Your task to perform on an android device: Find coffee shops on Maps Image 0: 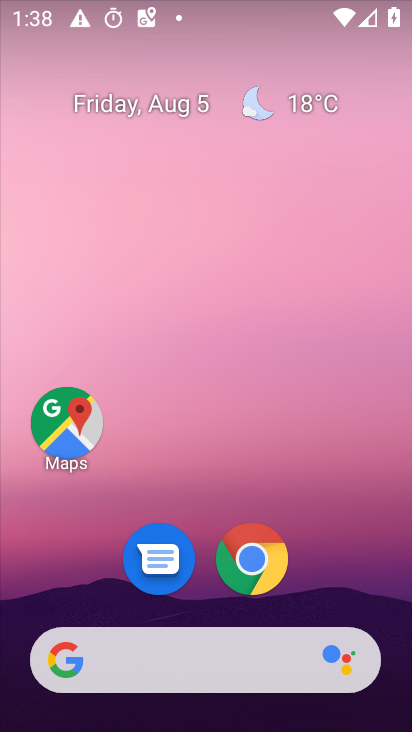
Step 0: click (83, 427)
Your task to perform on an android device: Find coffee shops on Maps Image 1: 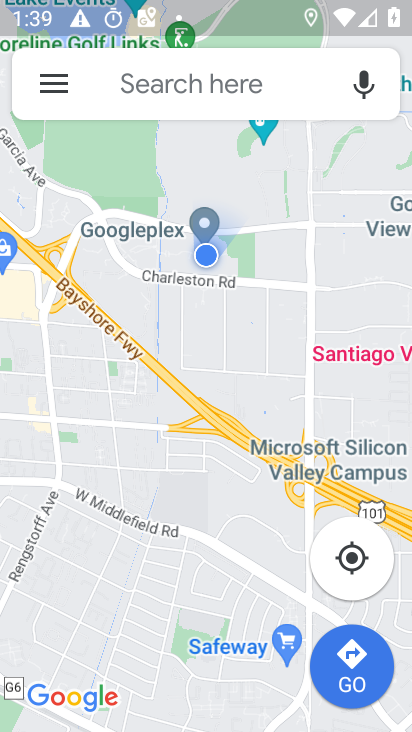
Step 1: click (126, 64)
Your task to perform on an android device: Find coffee shops on Maps Image 2: 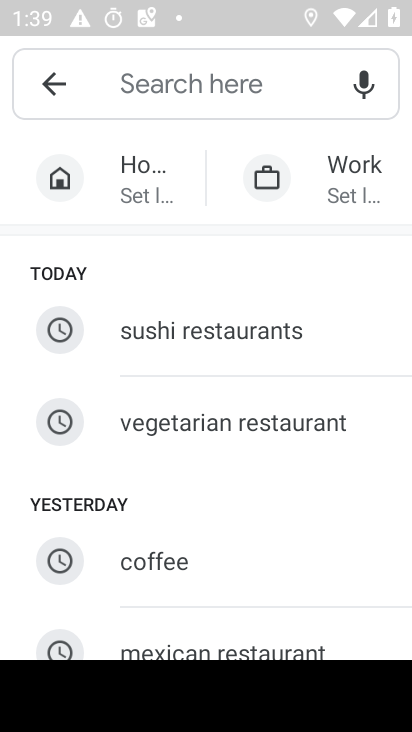
Step 2: type "coffee shops"
Your task to perform on an android device: Find coffee shops on Maps Image 3: 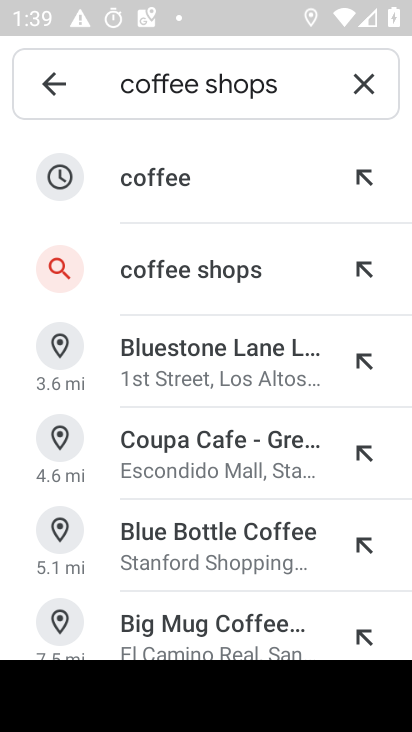
Step 3: click (252, 269)
Your task to perform on an android device: Find coffee shops on Maps Image 4: 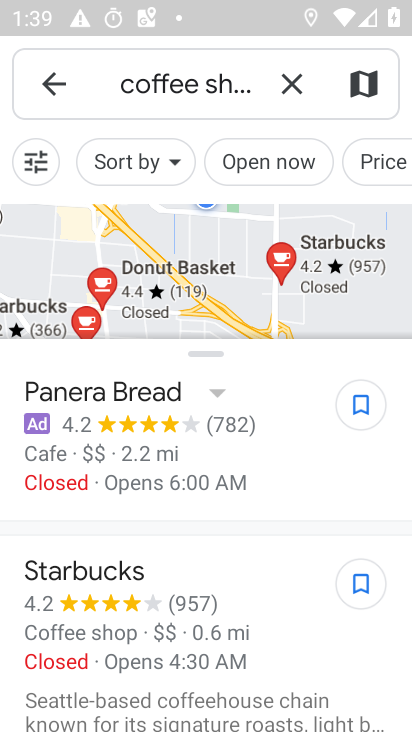
Step 4: task complete